Your task to perform on an android device: Open my contact list Image 0: 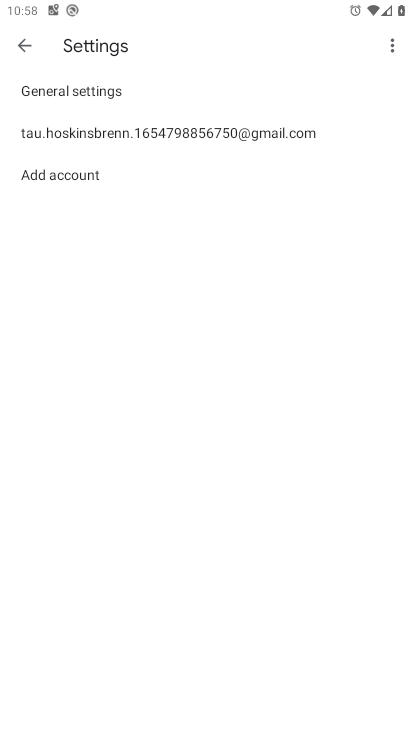
Step 0: press home button
Your task to perform on an android device: Open my contact list Image 1: 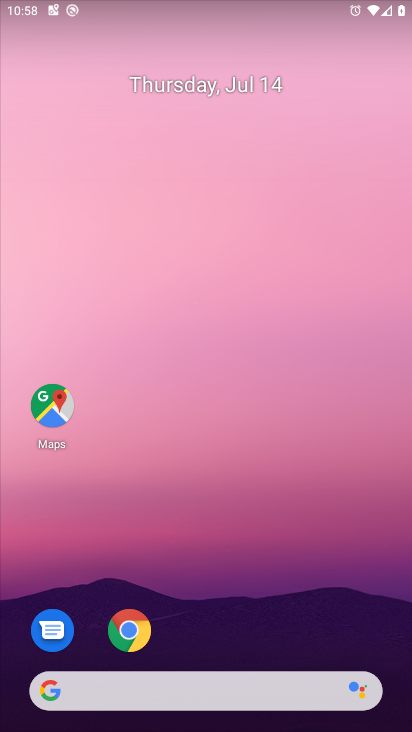
Step 1: drag from (32, 688) to (411, 231)
Your task to perform on an android device: Open my contact list Image 2: 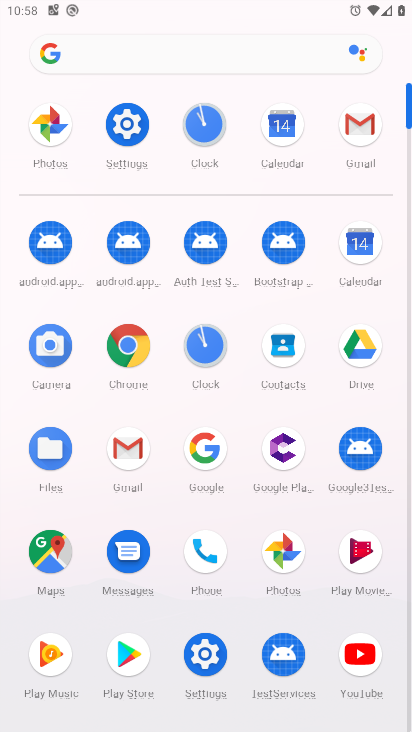
Step 2: click (210, 553)
Your task to perform on an android device: Open my contact list Image 3: 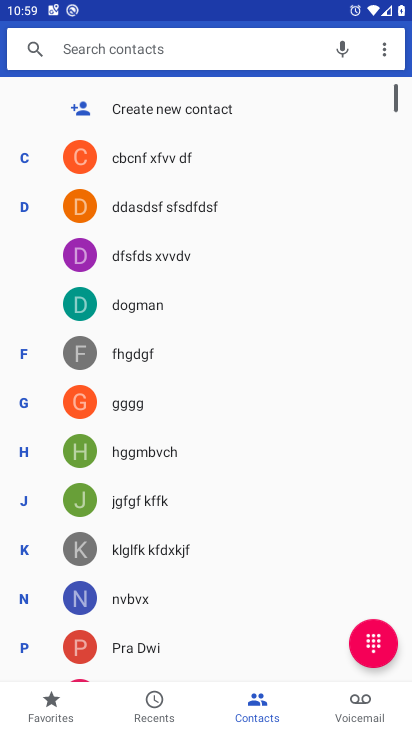
Step 3: task complete